Your task to perform on an android device: Clear the cart on ebay.com. Search for "jbl flip 4" on ebay.com, select the first entry, add it to the cart, then select checkout. Image 0: 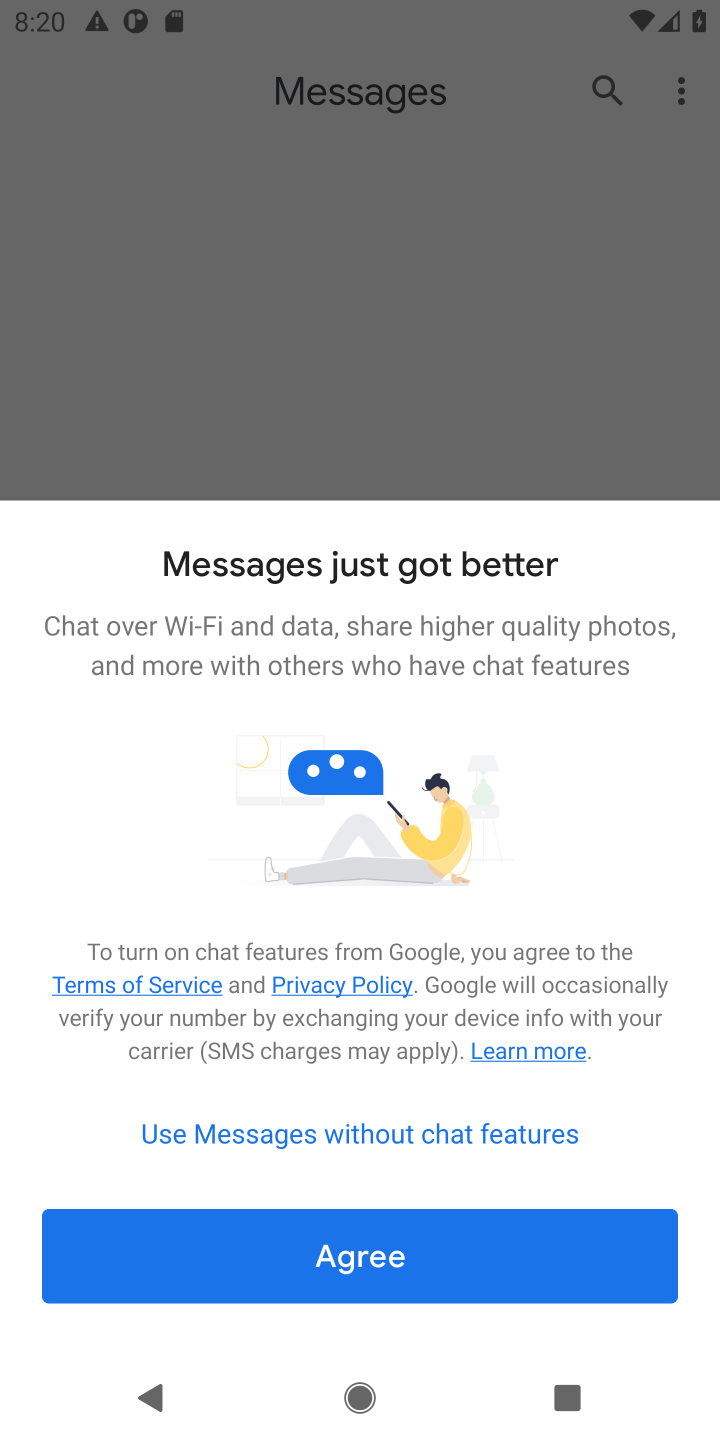
Step 0: press home button
Your task to perform on an android device: Clear the cart on ebay.com. Search for "jbl flip 4" on ebay.com, select the first entry, add it to the cart, then select checkout. Image 1: 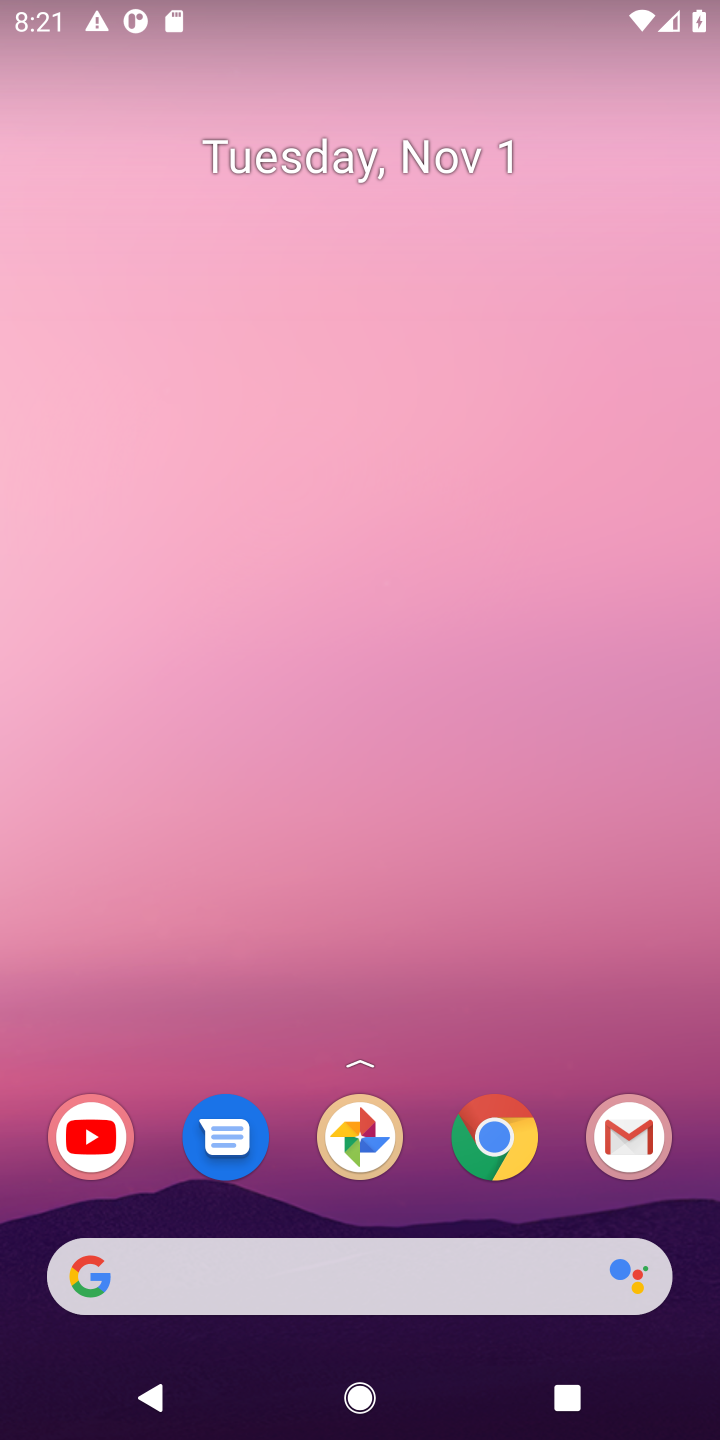
Step 1: click (322, 1283)
Your task to perform on an android device: Clear the cart on ebay.com. Search for "jbl flip 4" on ebay.com, select the first entry, add it to the cart, then select checkout. Image 2: 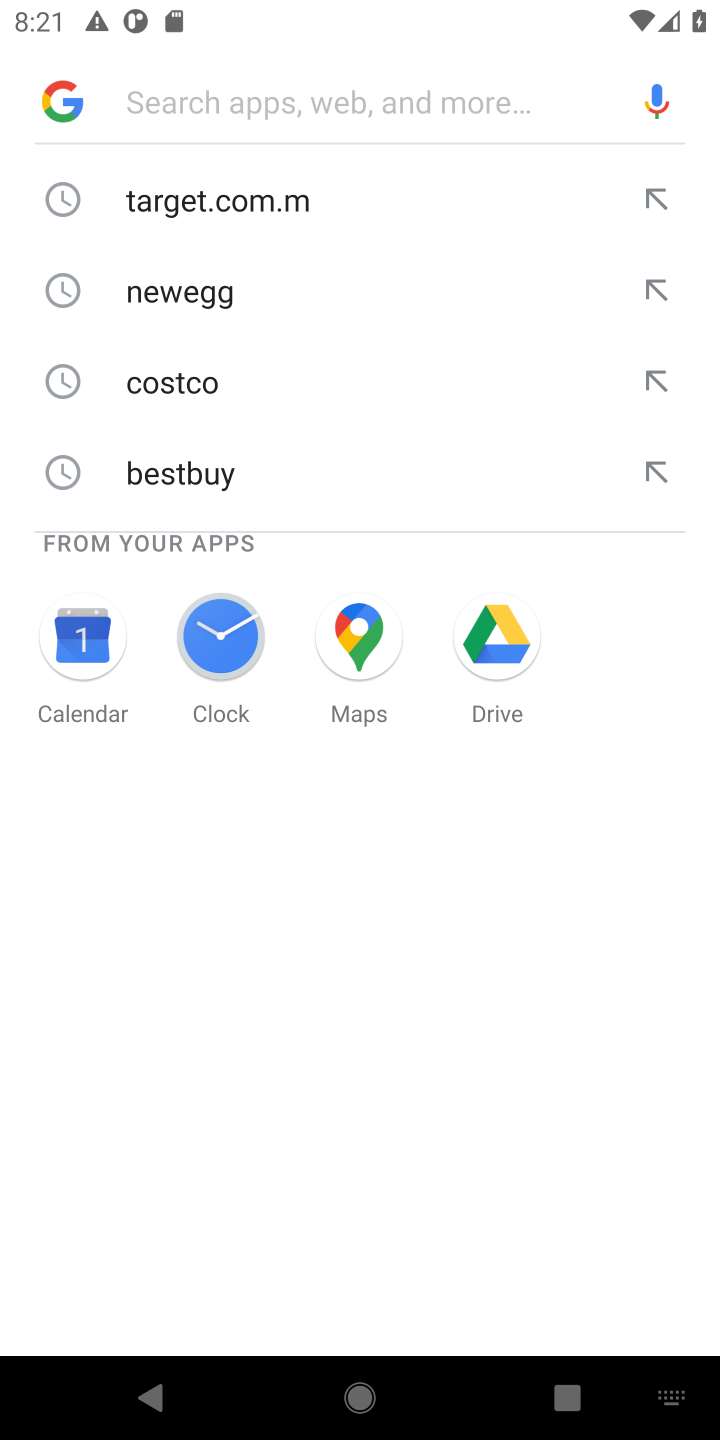
Step 2: type "ebay.com"
Your task to perform on an android device: Clear the cart on ebay.com. Search for "jbl flip 4" on ebay.com, select the first entry, add it to the cart, then select checkout. Image 3: 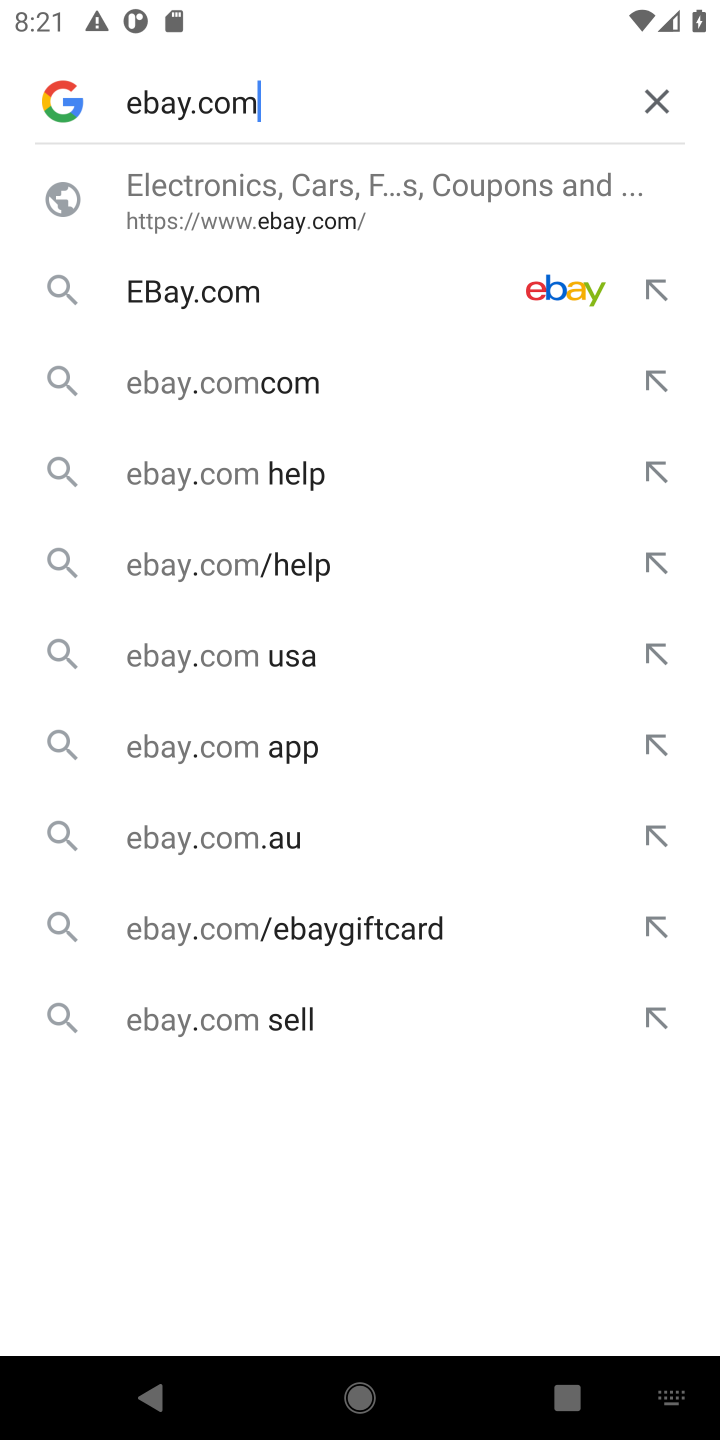
Step 3: click (270, 300)
Your task to perform on an android device: Clear the cart on ebay.com. Search for "jbl flip 4" on ebay.com, select the first entry, add it to the cart, then select checkout. Image 4: 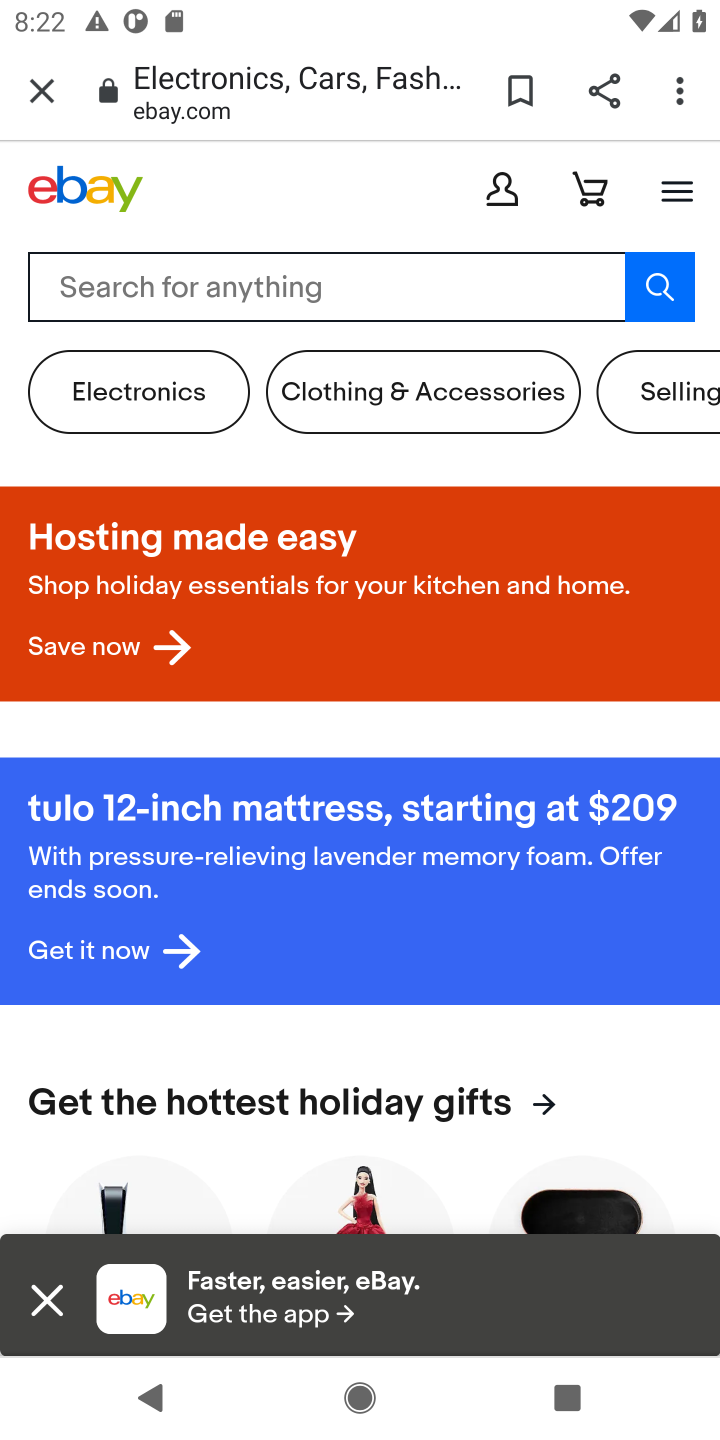
Step 4: click (280, 259)
Your task to perform on an android device: Clear the cart on ebay.com. Search for "jbl flip 4" on ebay.com, select the first entry, add it to the cart, then select checkout. Image 5: 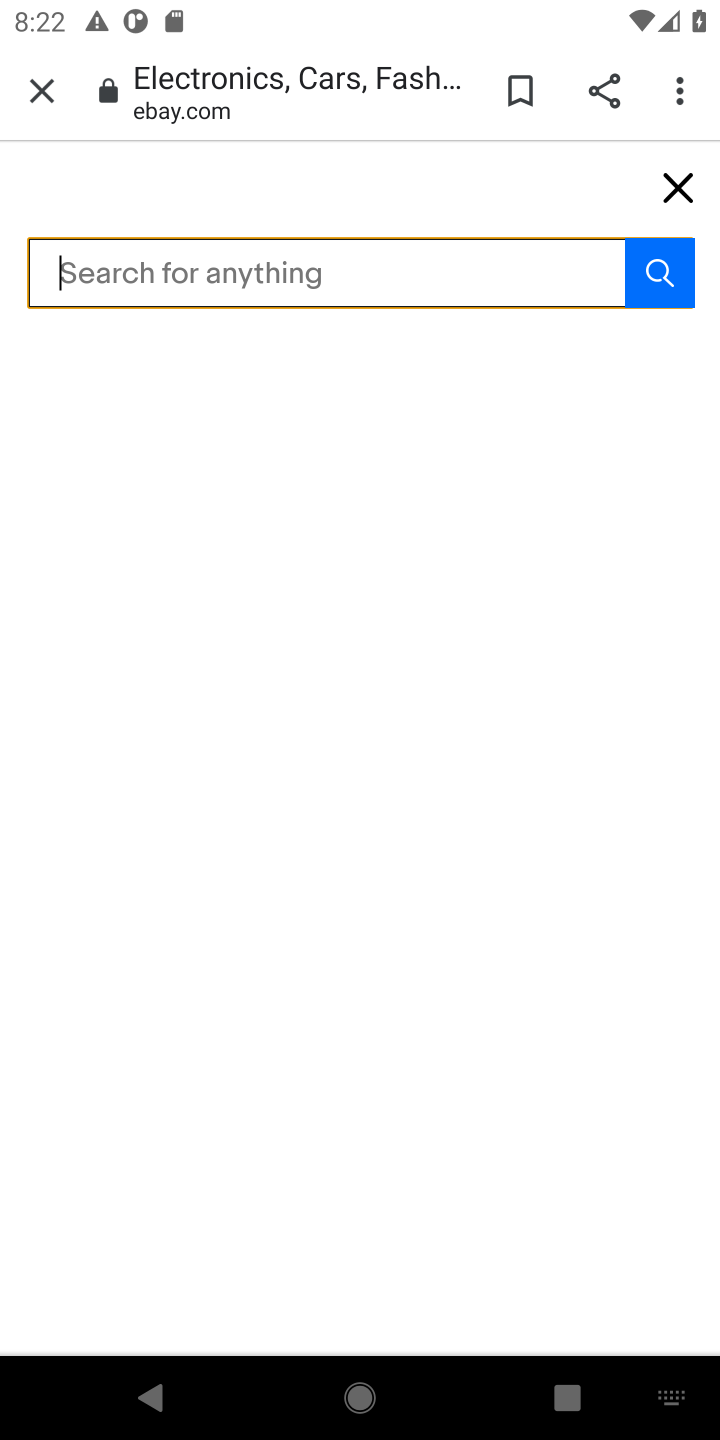
Step 5: type "jbl flip 4"
Your task to perform on an android device: Clear the cart on ebay.com. Search for "jbl flip 4" on ebay.com, select the first entry, add it to the cart, then select checkout. Image 6: 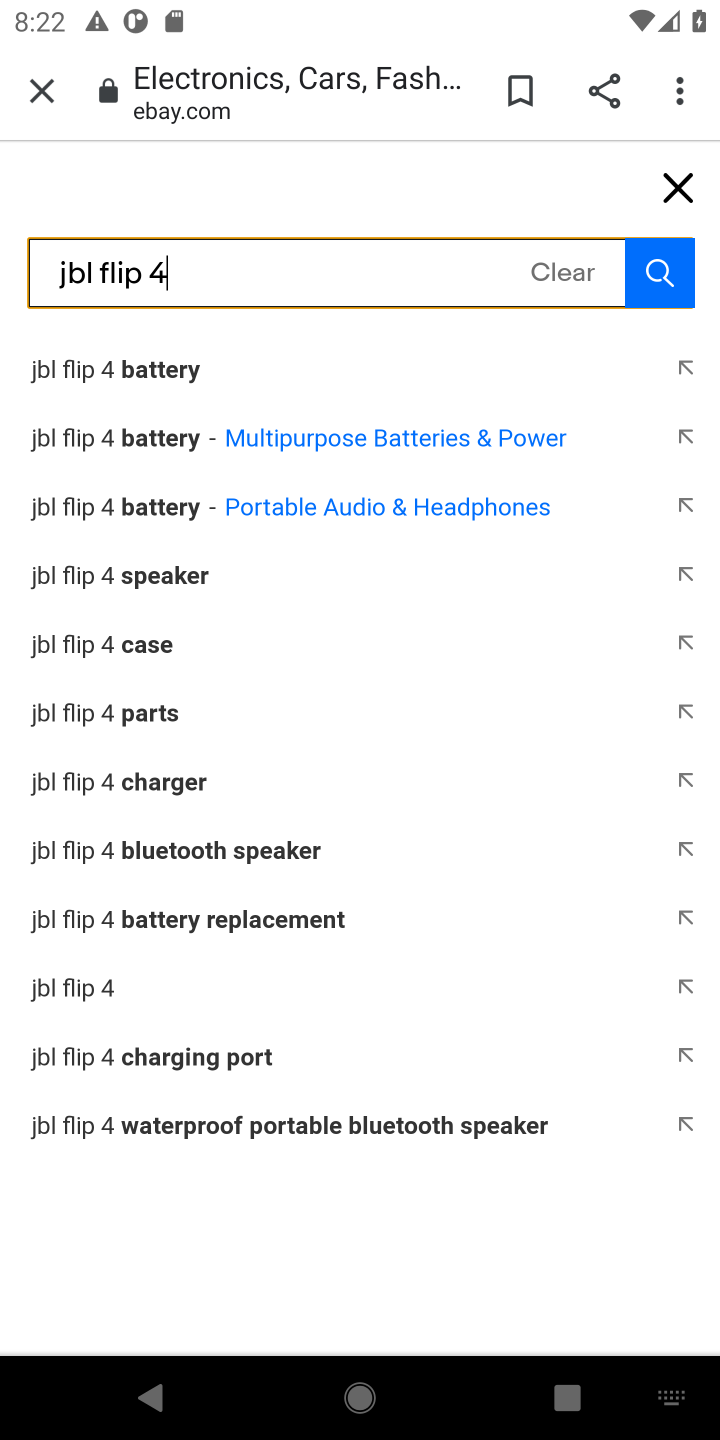
Step 6: click (157, 367)
Your task to perform on an android device: Clear the cart on ebay.com. Search for "jbl flip 4" on ebay.com, select the first entry, add it to the cart, then select checkout. Image 7: 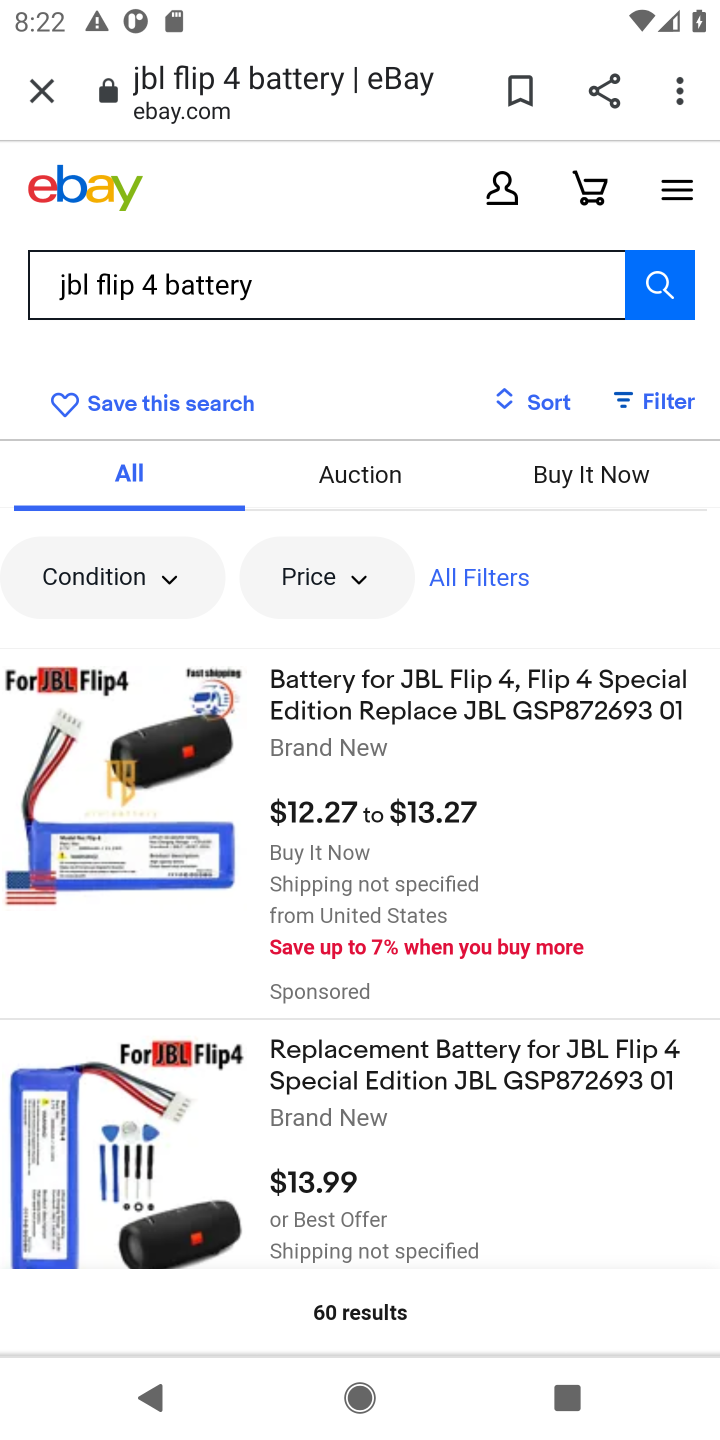
Step 7: click (159, 713)
Your task to perform on an android device: Clear the cart on ebay.com. Search for "jbl flip 4" on ebay.com, select the first entry, add it to the cart, then select checkout. Image 8: 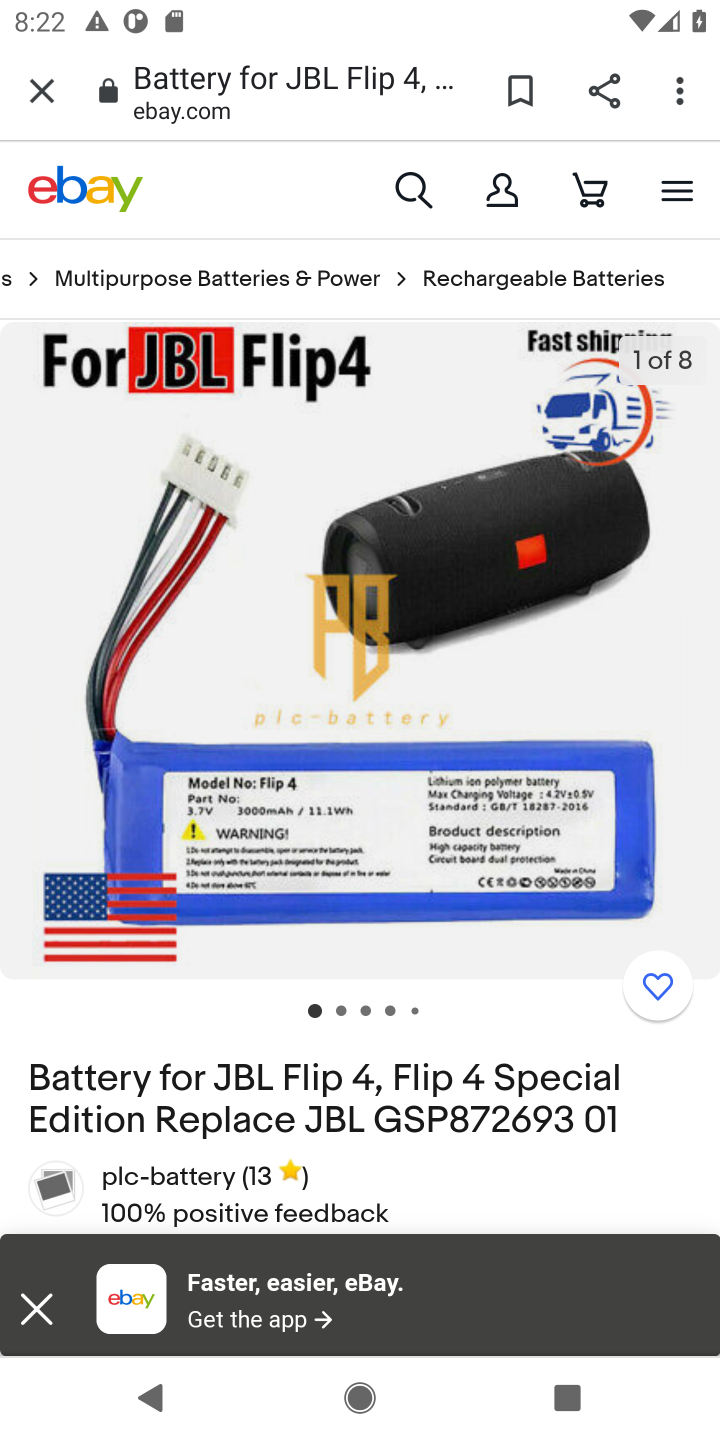
Step 8: drag from (330, 1172) to (400, 615)
Your task to perform on an android device: Clear the cart on ebay.com. Search for "jbl flip 4" on ebay.com, select the first entry, add it to the cart, then select checkout. Image 9: 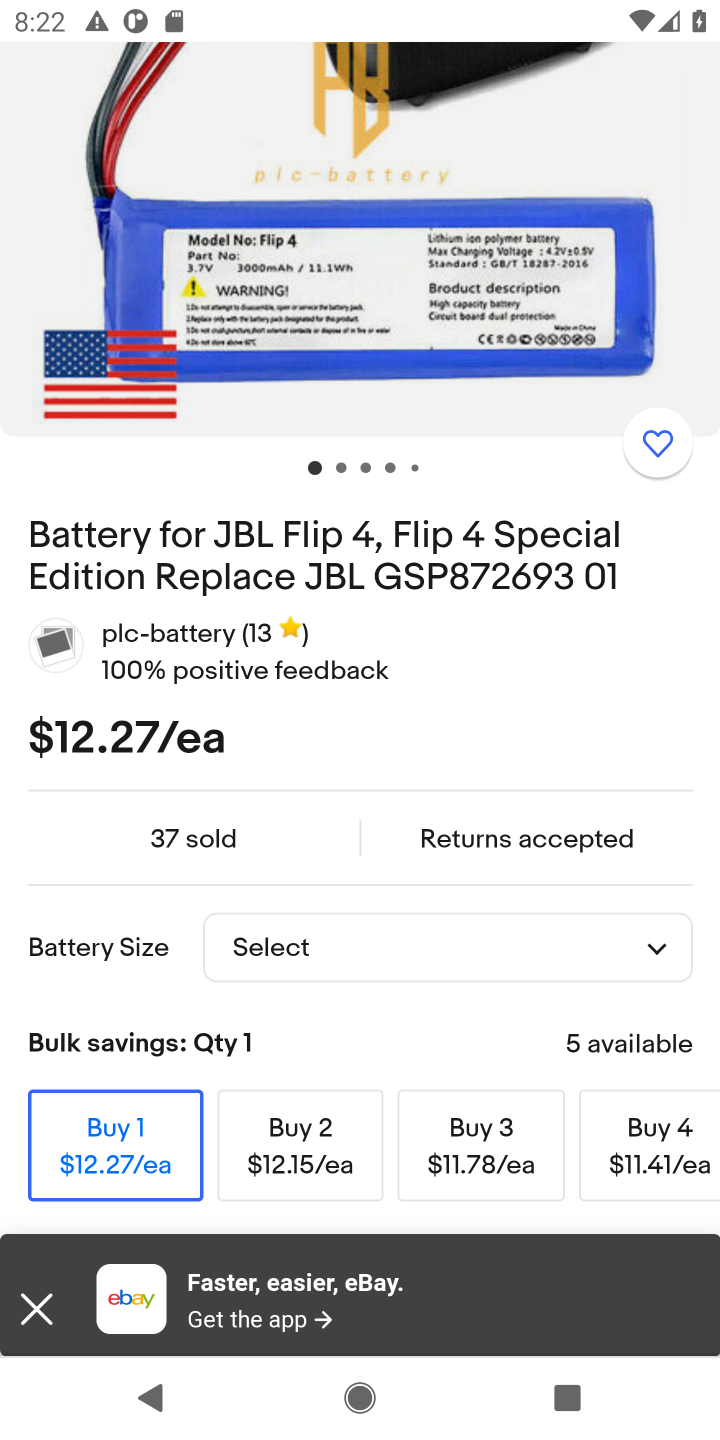
Step 9: drag from (332, 961) to (375, 677)
Your task to perform on an android device: Clear the cart on ebay.com. Search for "jbl flip 4" on ebay.com, select the first entry, add it to the cart, then select checkout. Image 10: 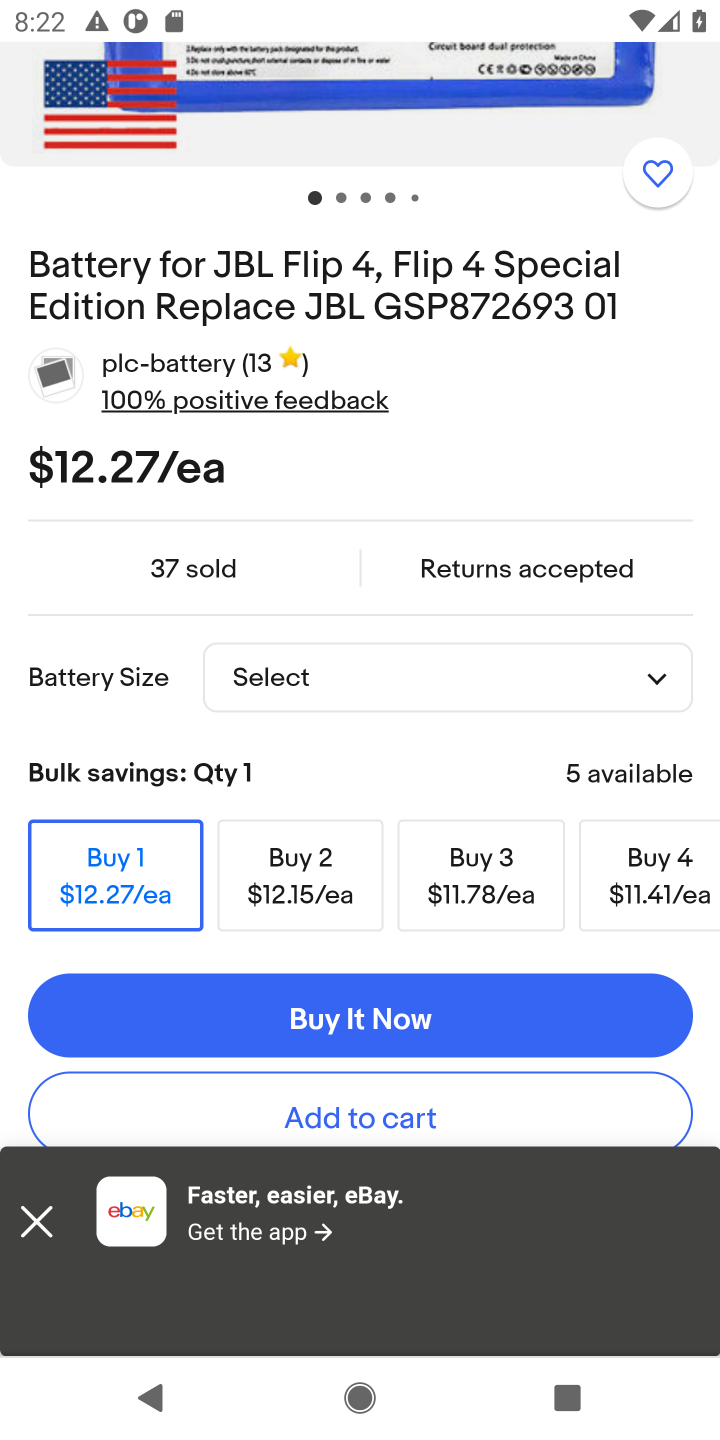
Step 10: click (336, 1108)
Your task to perform on an android device: Clear the cart on ebay.com. Search for "jbl flip 4" on ebay.com, select the first entry, add it to the cart, then select checkout. Image 11: 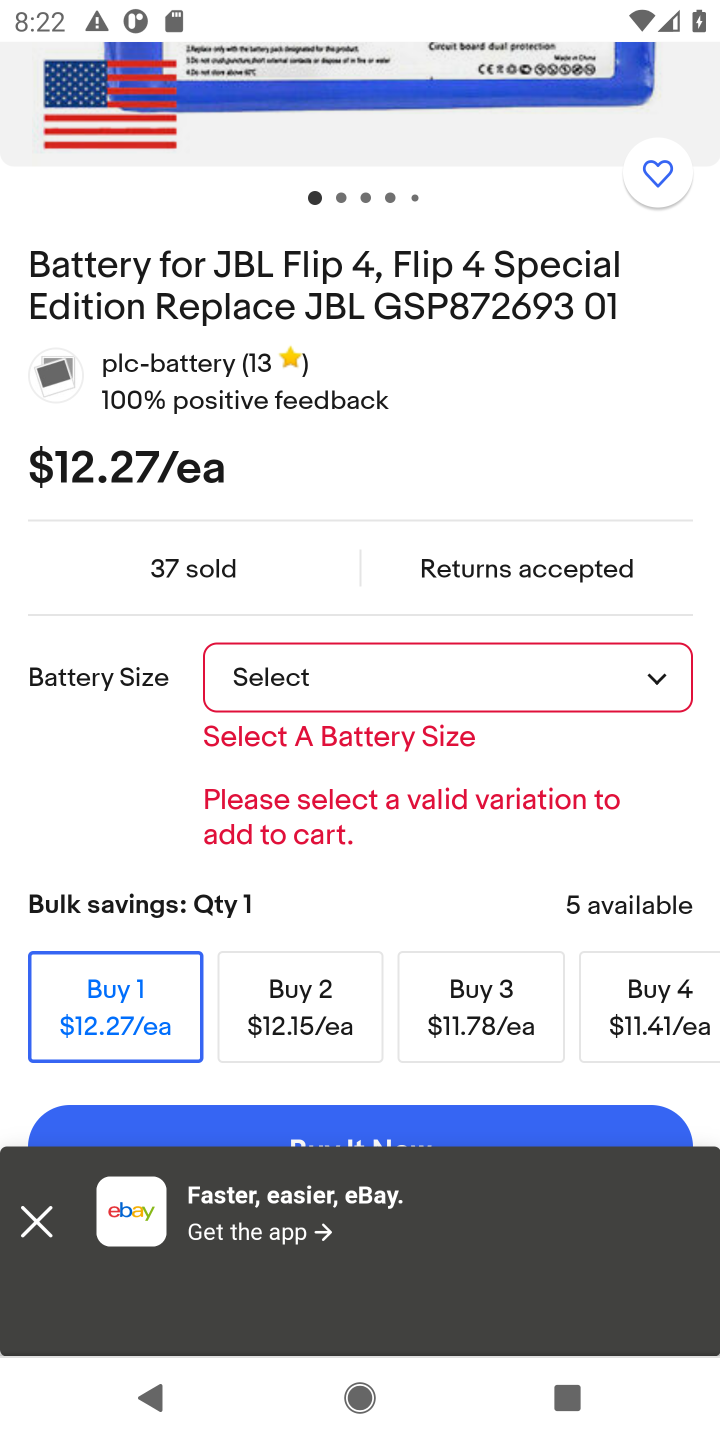
Step 11: click (35, 1229)
Your task to perform on an android device: Clear the cart on ebay.com. Search for "jbl flip 4" on ebay.com, select the first entry, add it to the cart, then select checkout. Image 12: 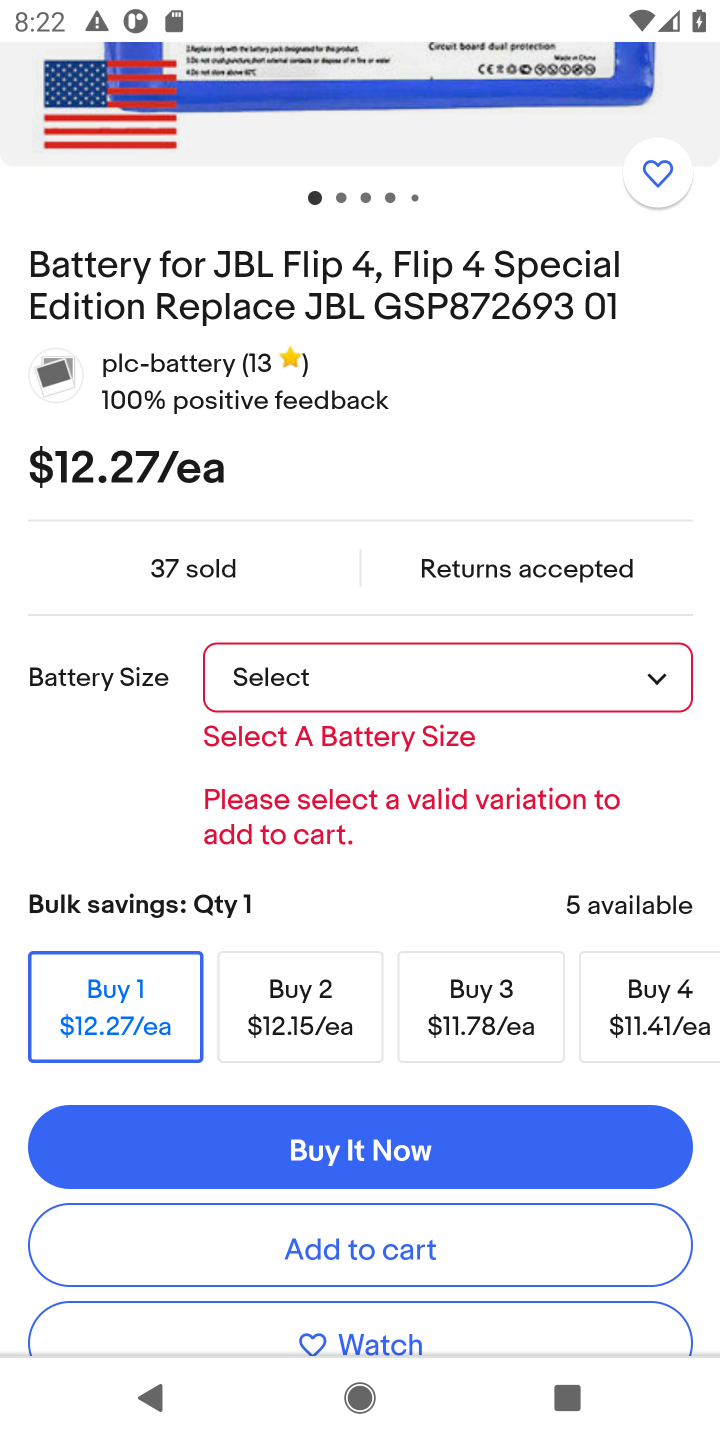
Step 12: click (349, 1234)
Your task to perform on an android device: Clear the cart on ebay.com. Search for "jbl flip 4" on ebay.com, select the first entry, add it to the cart, then select checkout. Image 13: 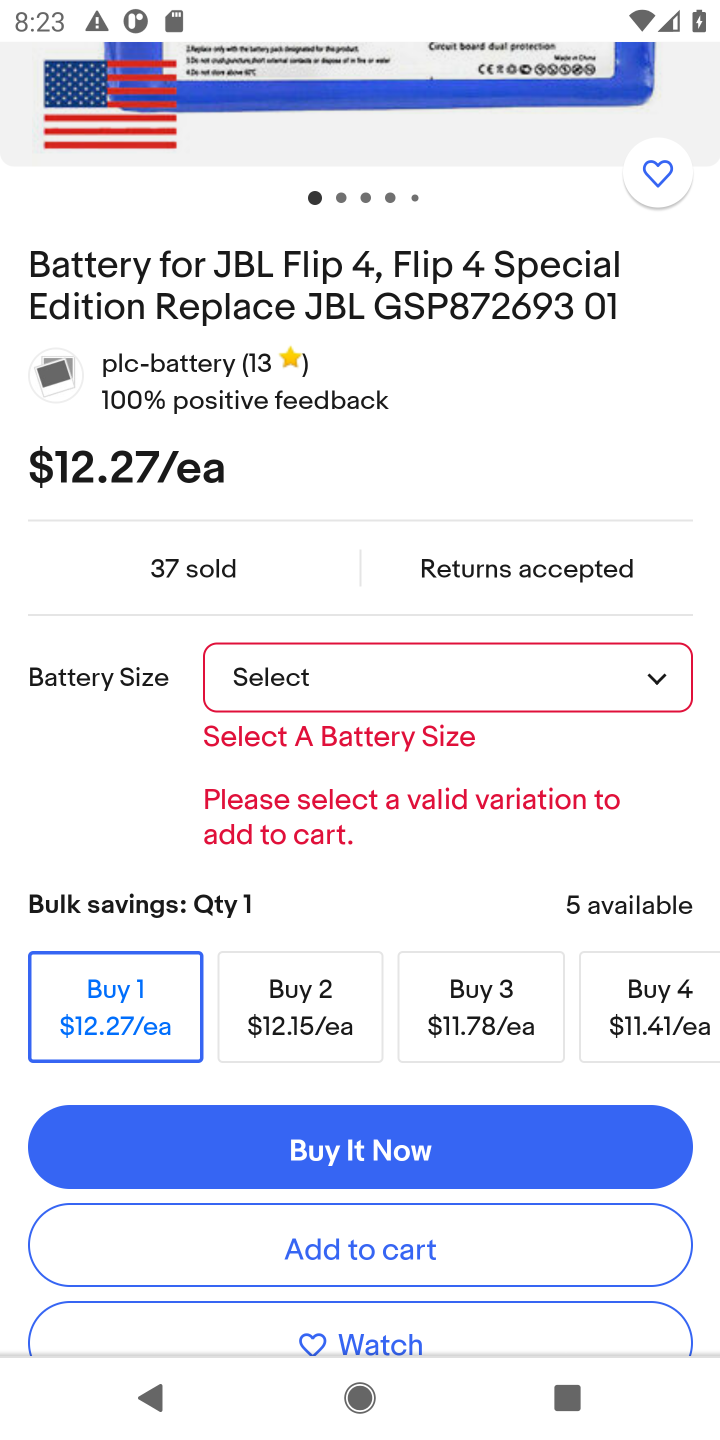
Step 13: click (319, 1261)
Your task to perform on an android device: Clear the cart on ebay.com. Search for "jbl flip 4" on ebay.com, select the first entry, add it to the cart, then select checkout. Image 14: 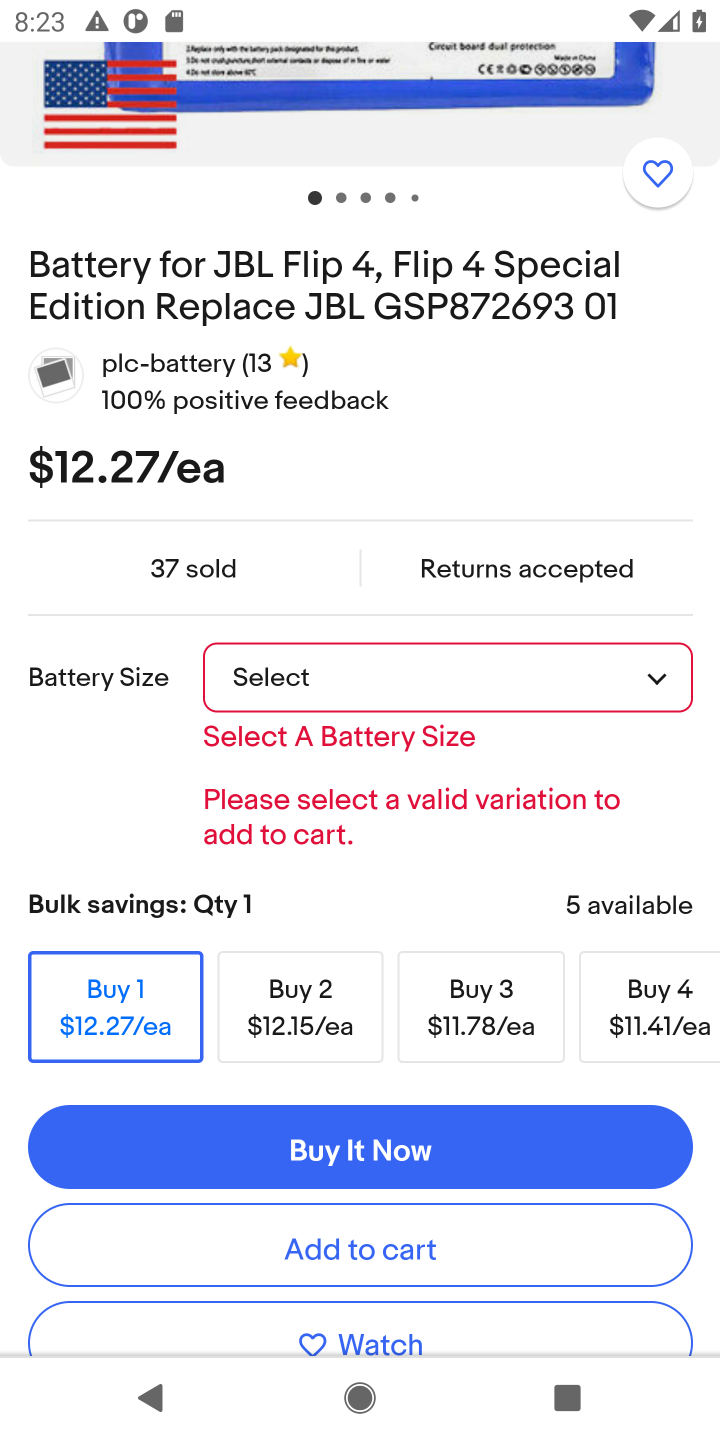
Step 14: click (362, 1250)
Your task to perform on an android device: Clear the cart on ebay.com. Search for "jbl flip 4" on ebay.com, select the first entry, add it to the cart, then select checkout. Image 15: 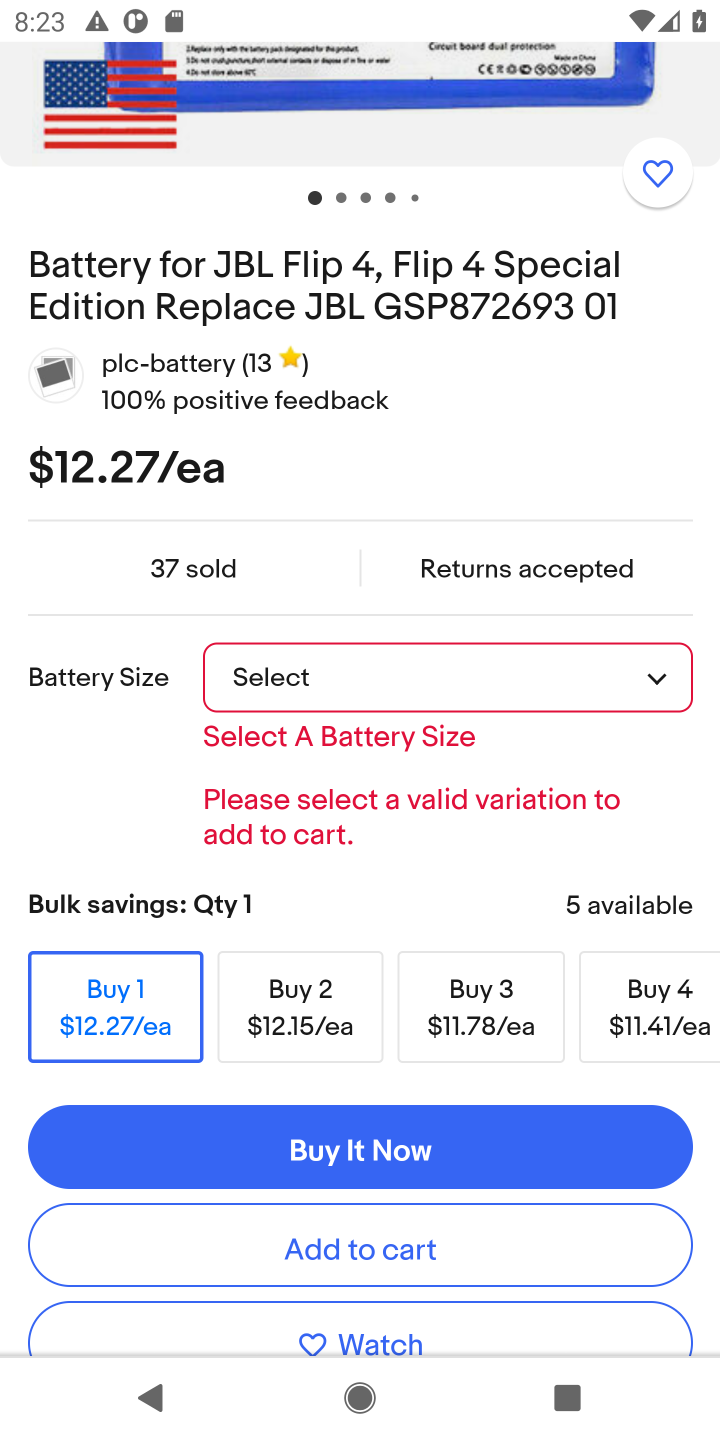
Step 15: click (385, 1252)
Your task to perform on an android device: Clear the cart on ebay.com. Search for "jbl flip 4" on ebay.com, select the first entry, add it to the cart, then select checkout. Image 16: 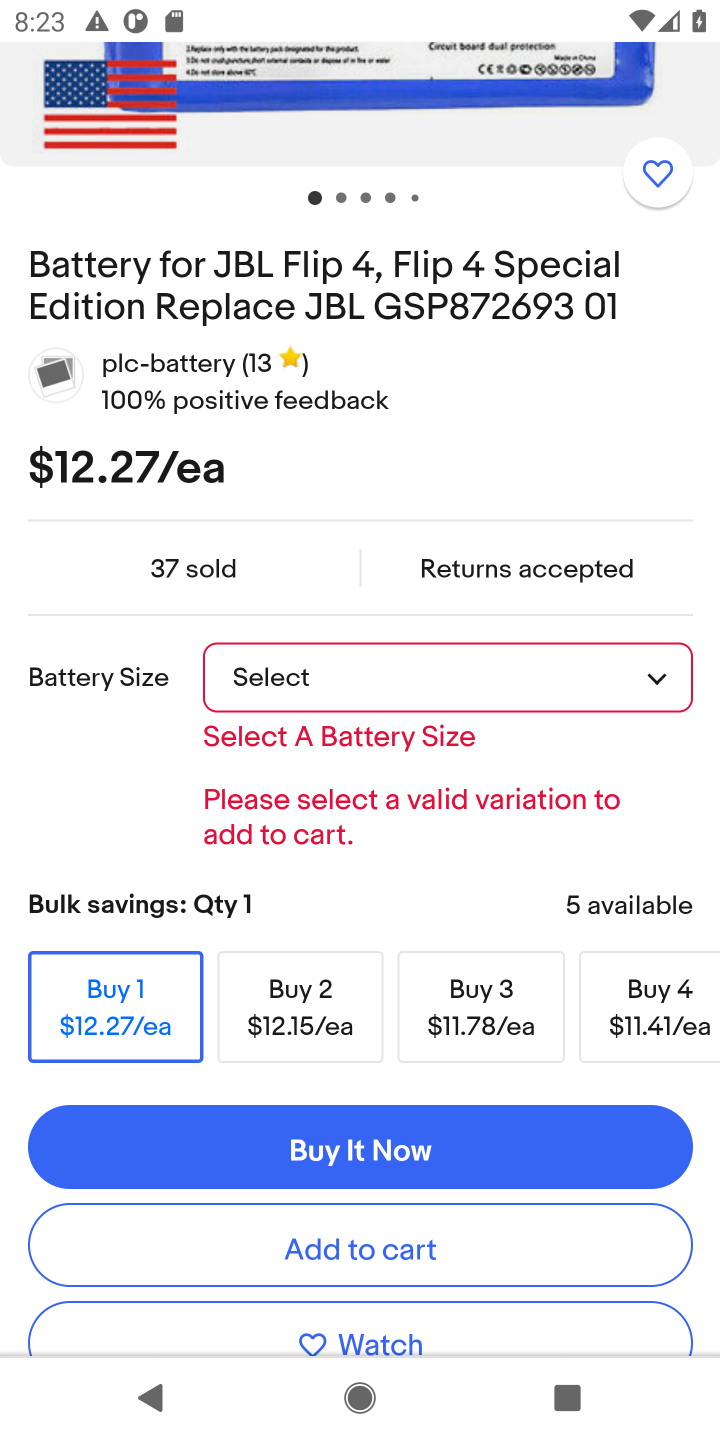
Step 16: click (385, 1252)
Your task to perform on an android device: Clear the cart on ebay.com. Search for "jbl flip 4" on ebay.com, select the first entry, add it to the cart, then select checkout. Image 17: 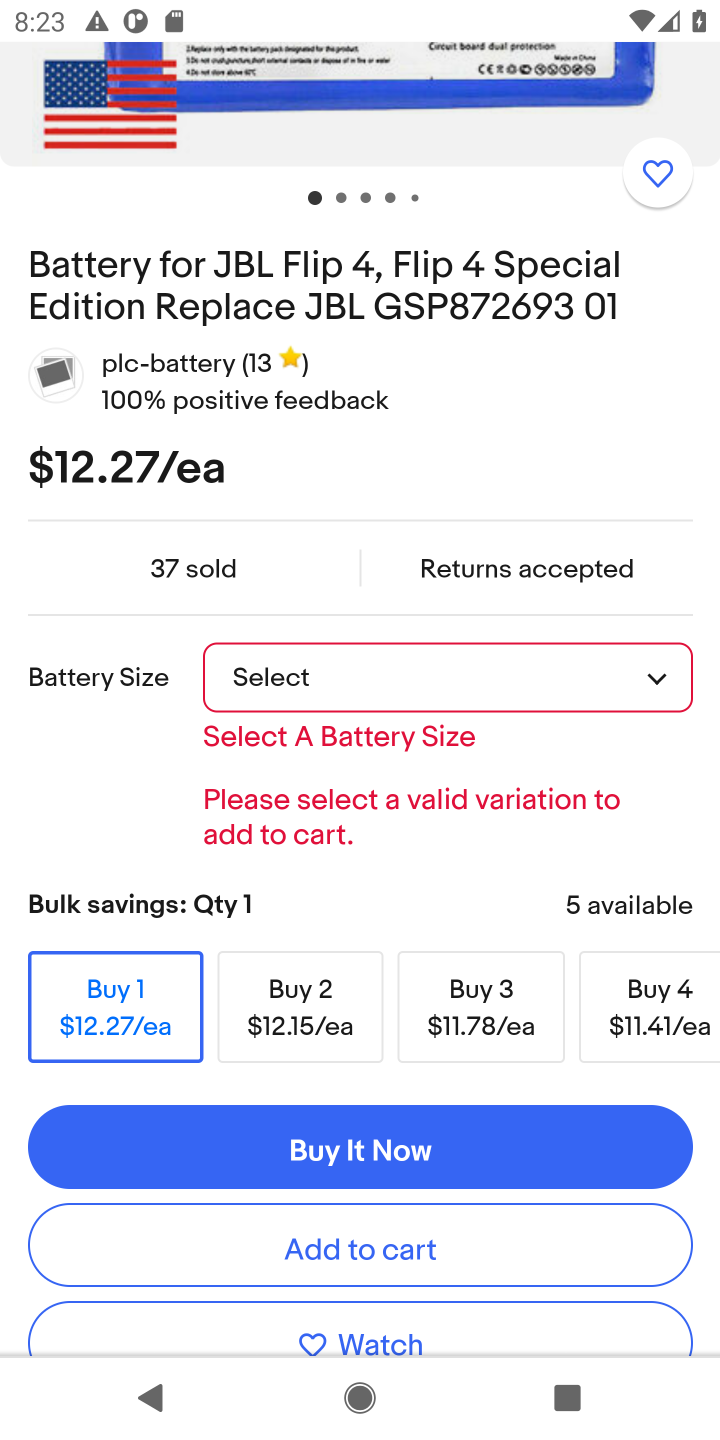
Step 17: click (385, 1252)
Your task to perform on an android device: Clear the cart on ebay.com. Search for "jbl flip 4" on ebay.com, select the first entry, add it to the cart, then select checkout. Image 18: 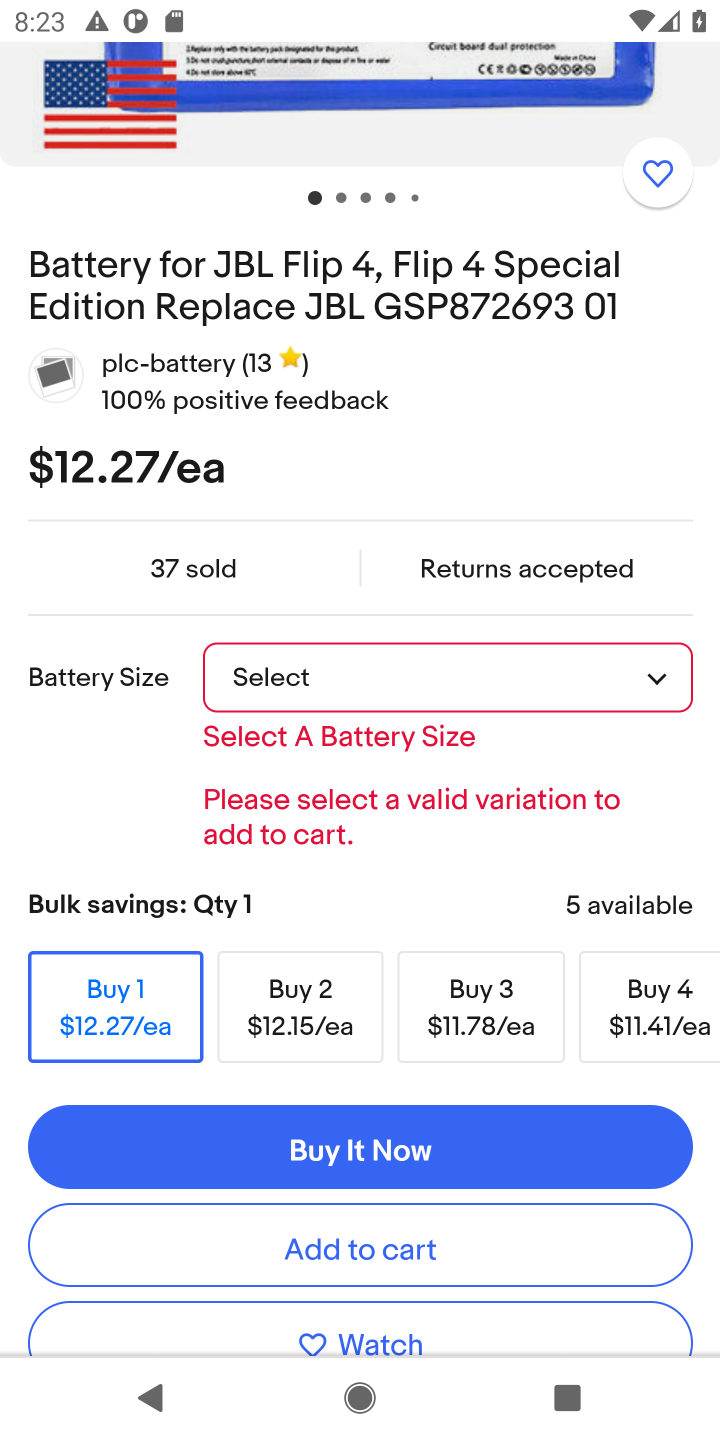
Step 18: click (385, 1252)
Your task to perform on an android device: Clear the cart on ebay.com. Search for "jbl flip 4" on ebay.com, select the first entry, add it to the cart, then select checkout. Image 19: 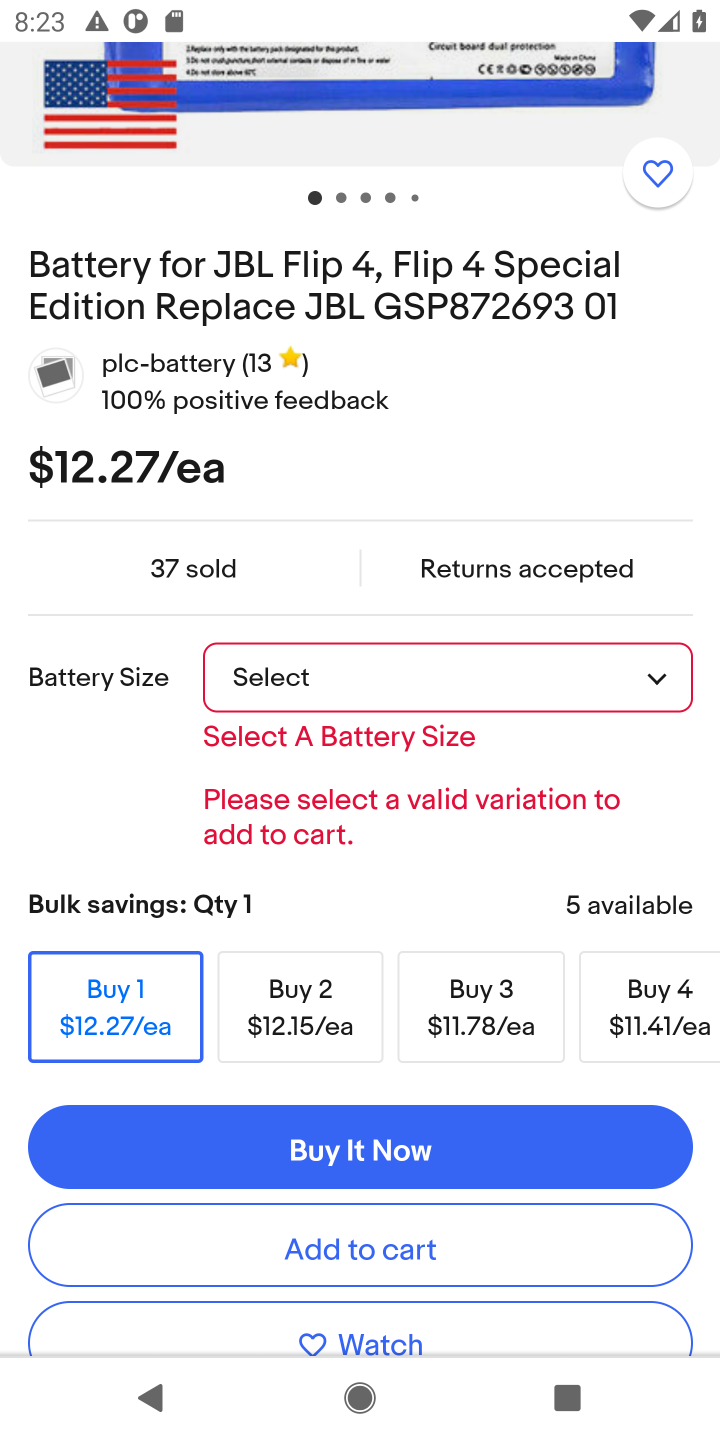
Step 19: click (651, 667)
Your task to perform on an android device: Clear the cart on ebay.com. Search for "jbl flip 4" on ebay.com, select the first entry, add it to the cart, then select checkout. Image 20: 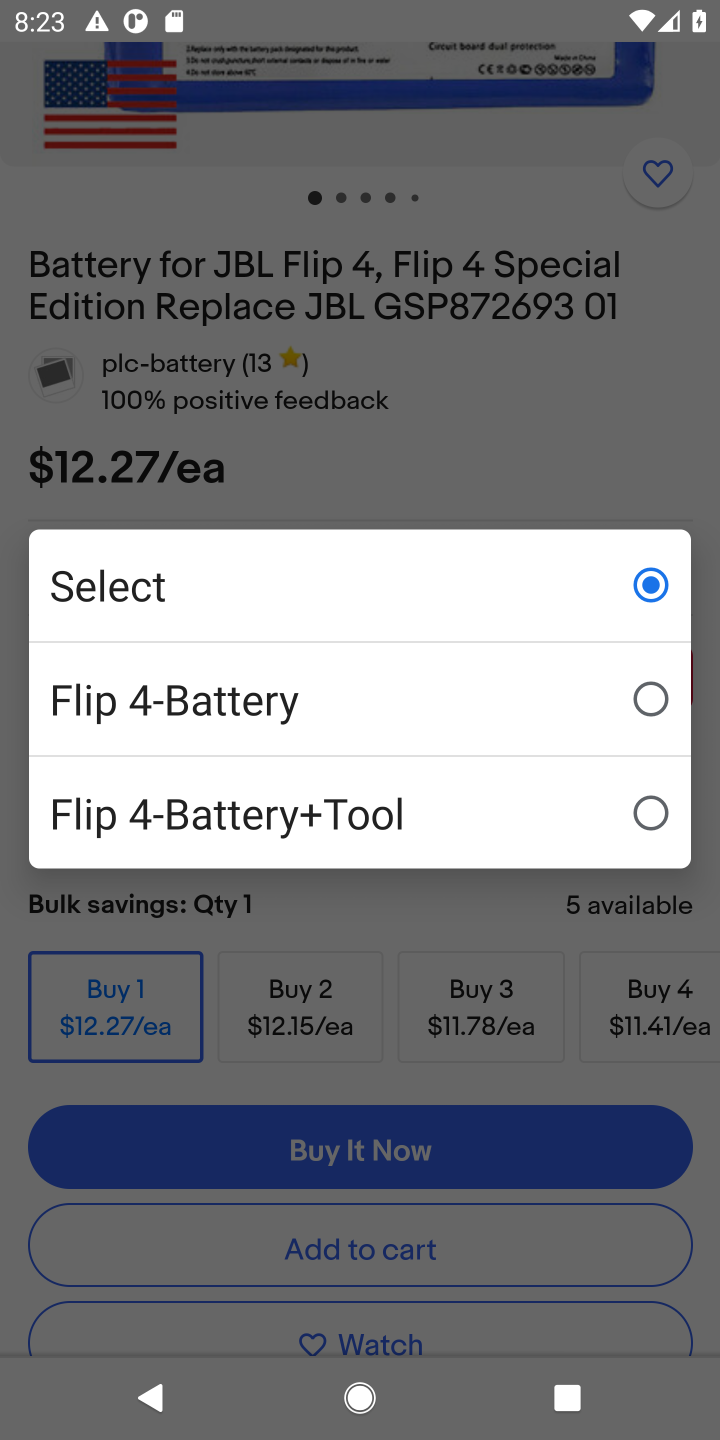
Step 20: click (637, 711)
Your task to perform on an android device: Clear the cart on ebay.com. Search for "jbl flip 4" on ebay.com, select the first entry, add it to the cart, then select checkout. Image 21: 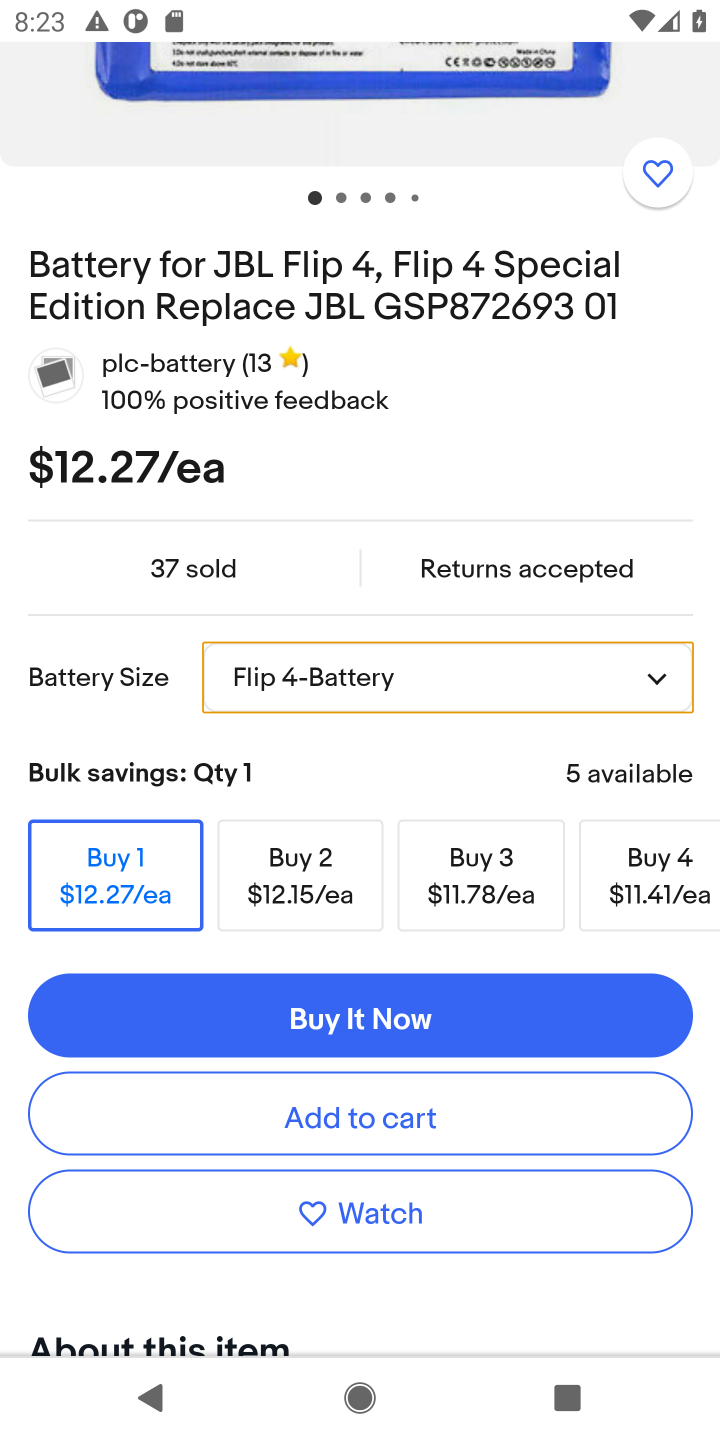
Step 21: click (333, 1121)
Your task to perform on an android device: Clear the cart on ebay.com. Search for "jbl flip 4" on ebay.com, select the first entry, add it to the cart, then select checkout. Image 22: 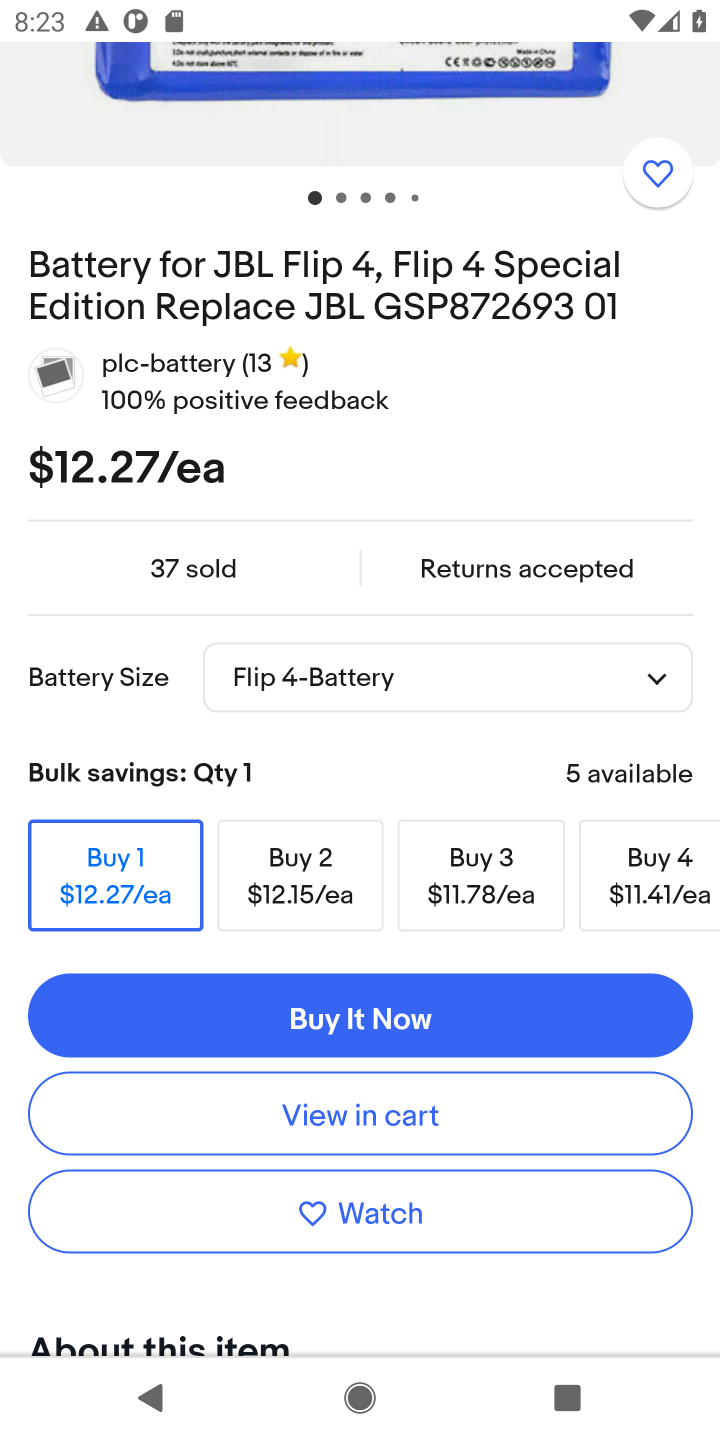
Step 22: click (358, 1122)
Your task to perform on an android device: Clear the cart on ebay.com. Search for "jbl flip 4" on ebay.com, select the first entry, add it to the cart, then select checkout. Image 23: 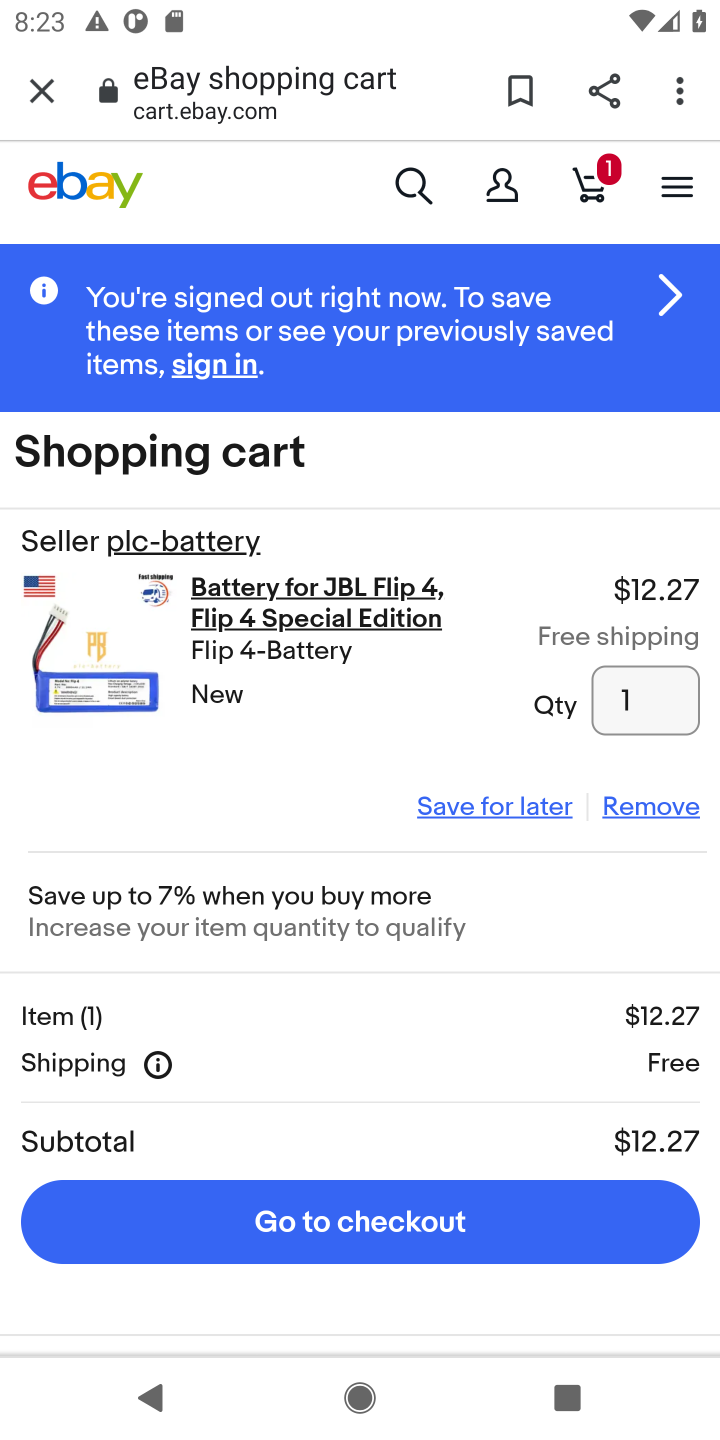
Step 23: click (354, 1227)
Your task to perform on an android device: Clear the cart on ebay.com. Search for "jbl flip 4" on ebay.com, select the first entry, add it to the cart, then select checkout. Image 24: 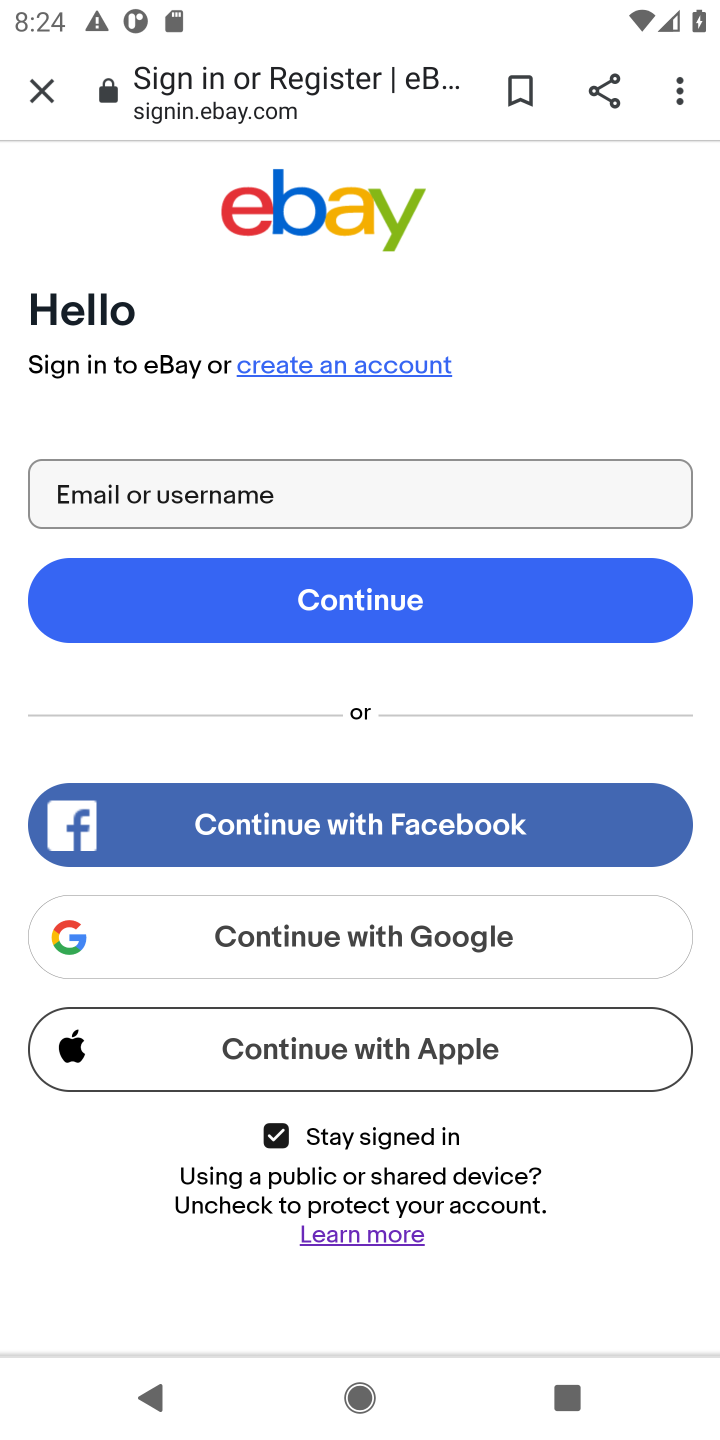
Step 24: task complete